Your task to perform on an android device: install app "eBay: The shopping marketplace" Image 0: 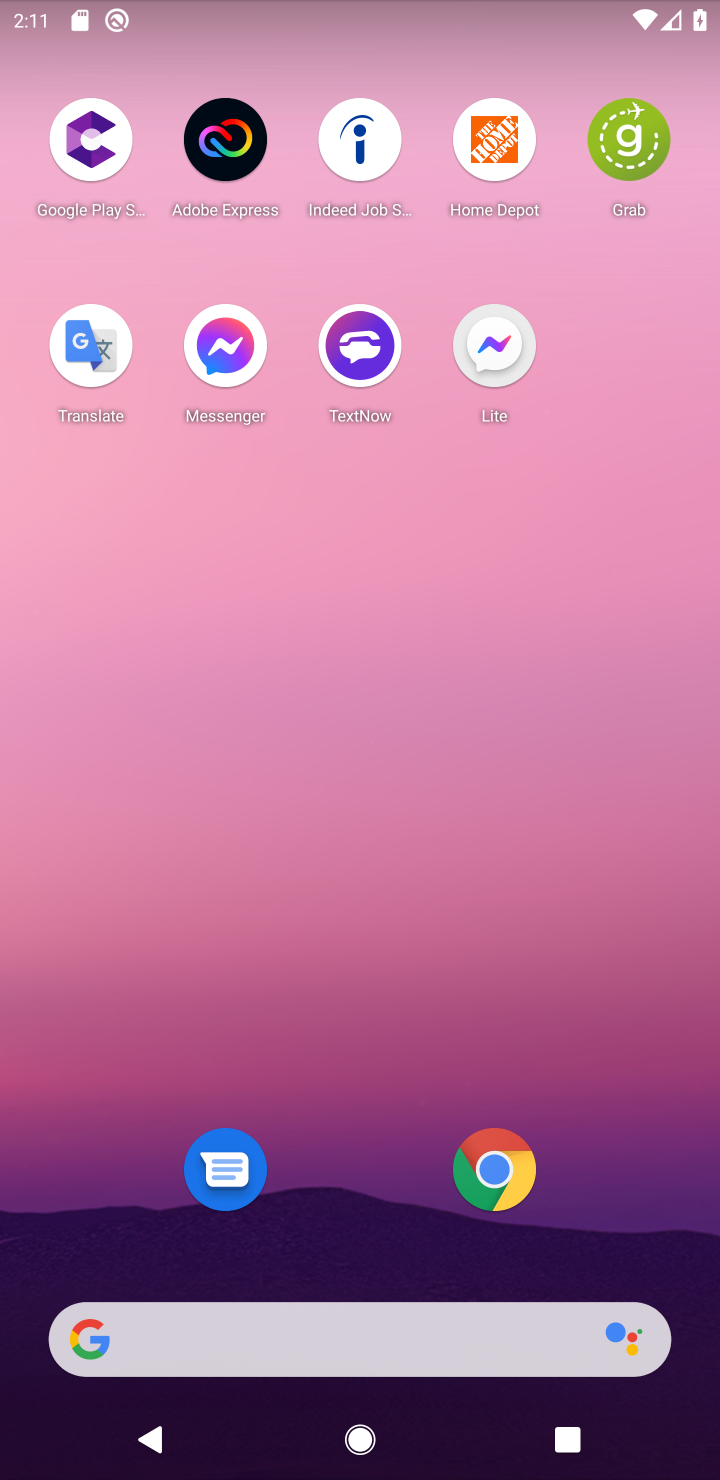
Step 0: drag from (362, 1225) to (456, 25)
Your task to perform on an android device: install app "eBay: The shopping marketplace" Image 1: 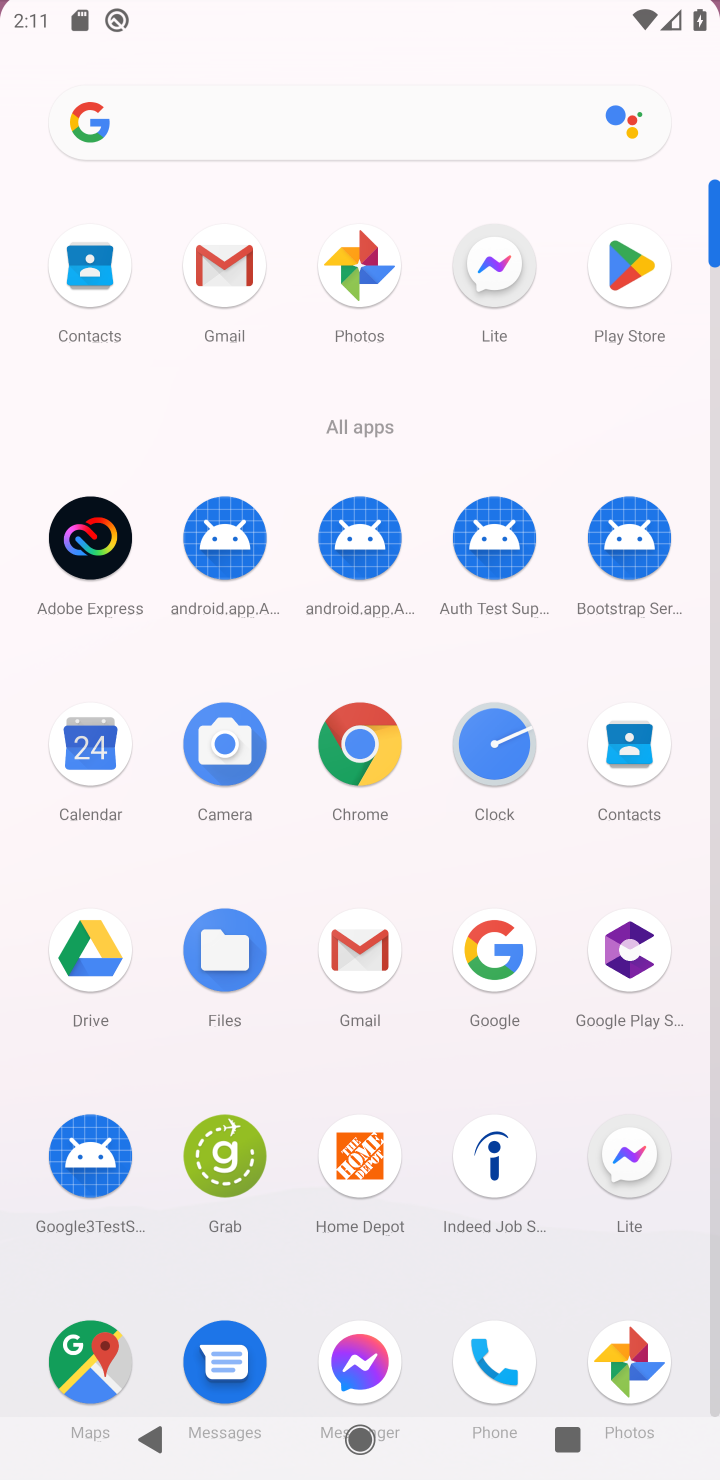
Step 1: click (615, 249)
Your task to perform on an android device: install app "eBay: The shopping marketplace" Image 2: 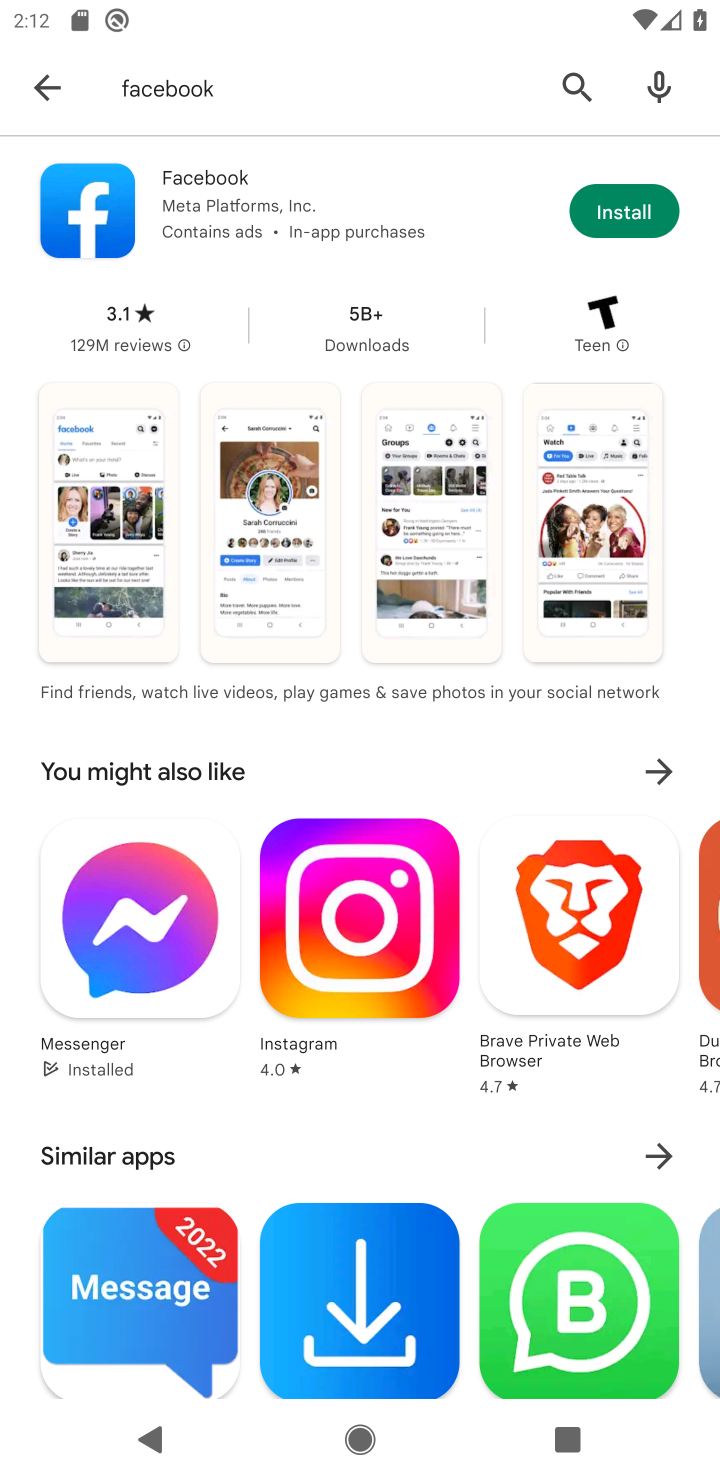
Step 2: click (564, 81)
Your task to perform on an android device: install app "eBay: The shopping marketplace" Image 3: 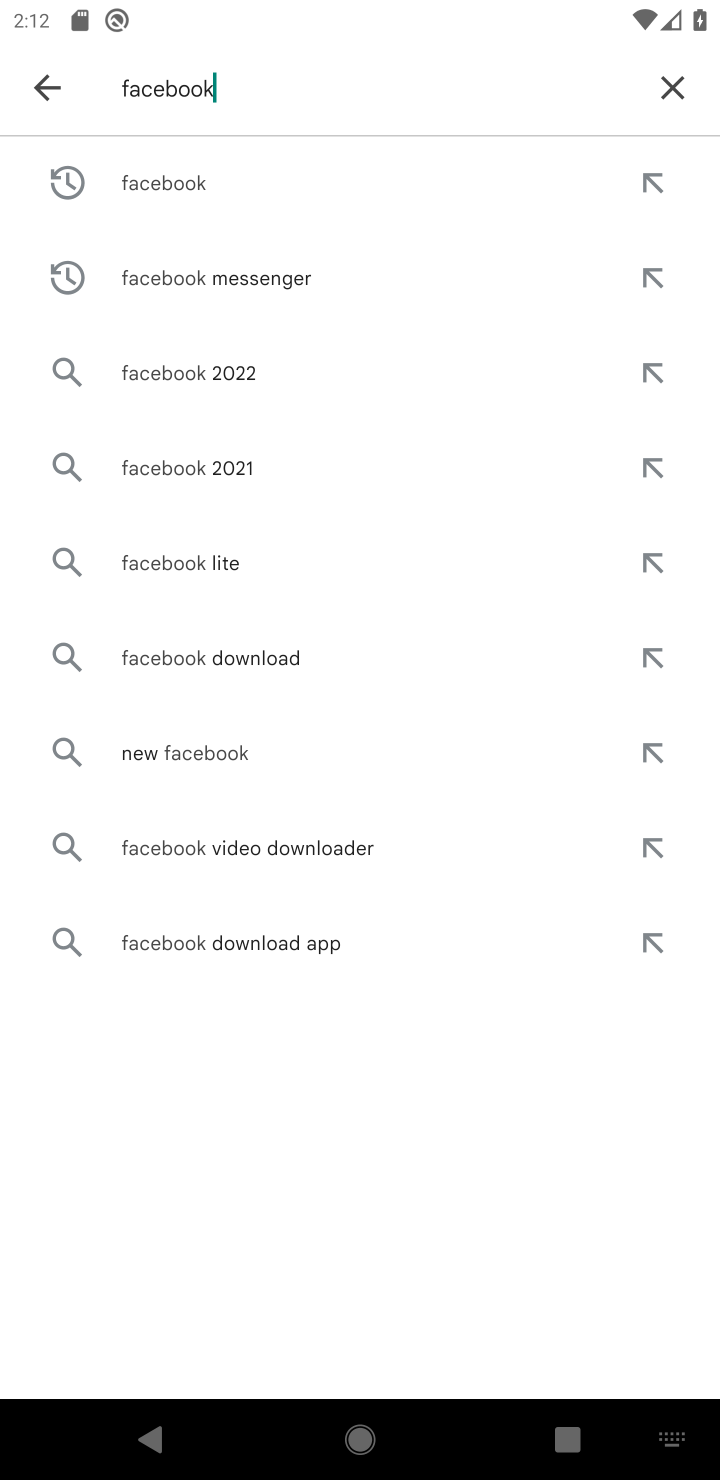
Step 3: click (672, 86)
Your task to perform on an android device: install app "eBay: The shopping marketplace" Image 4: 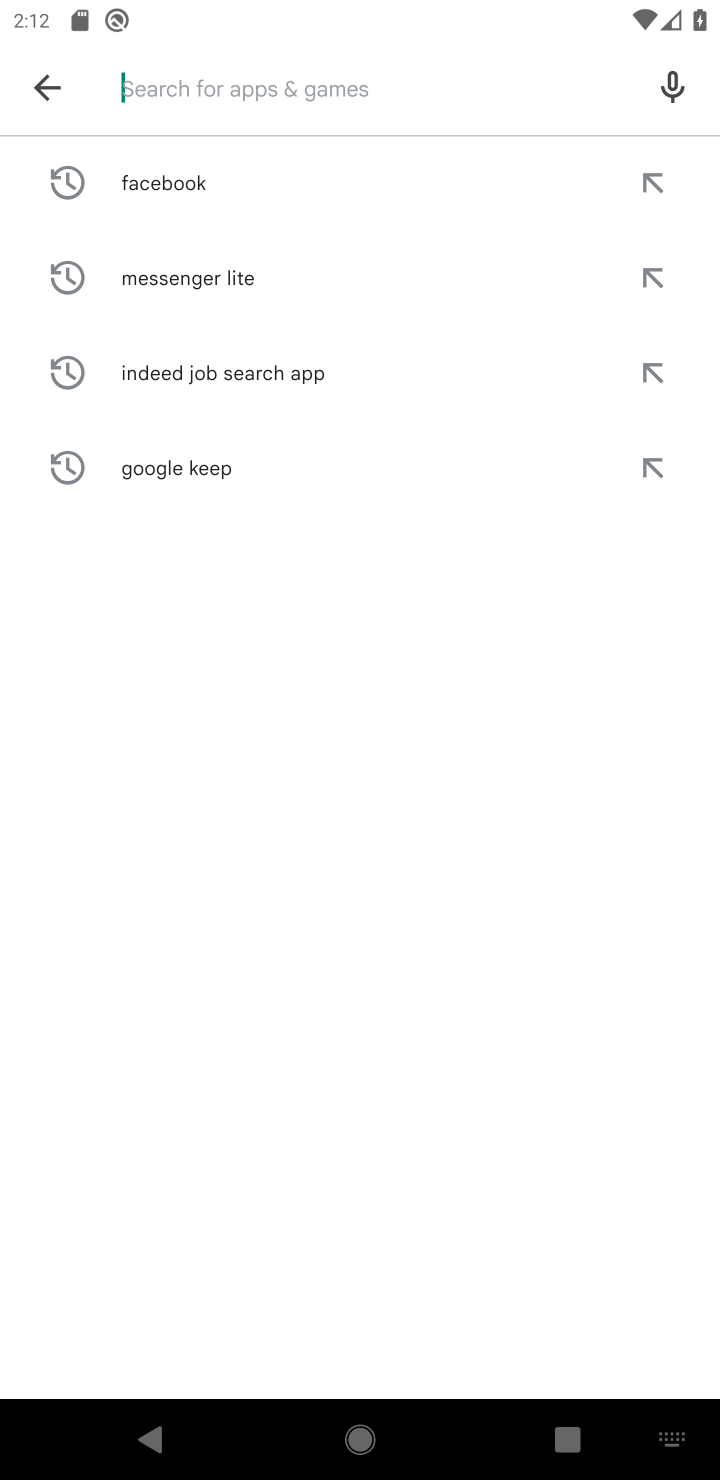
Step 4: click (313, 1476)
Your task to perform on an android device: install app "eBay: The shopping marketplace" Image 5: 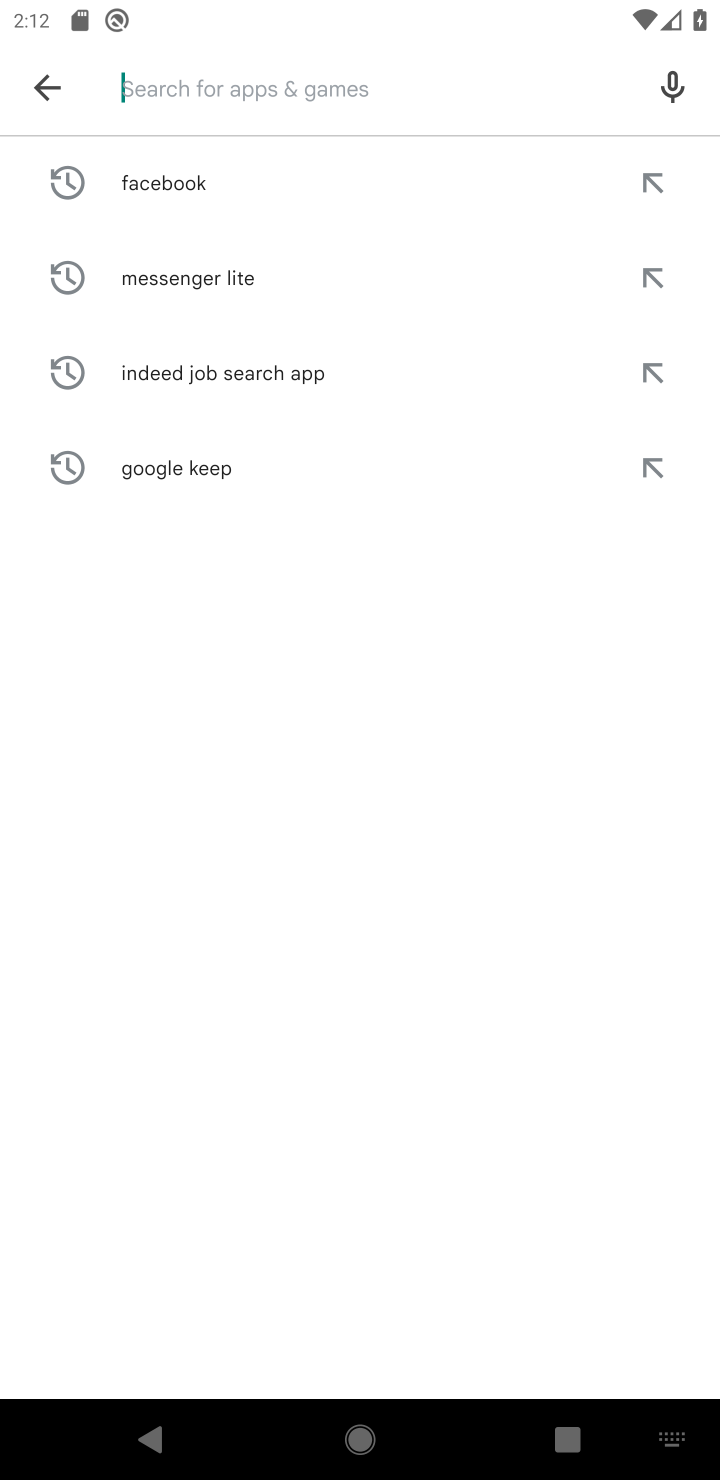
Step 5: type "eBay"
Your task to perform on an android device: install app "eBay: The shopping marketplace" Image 6: 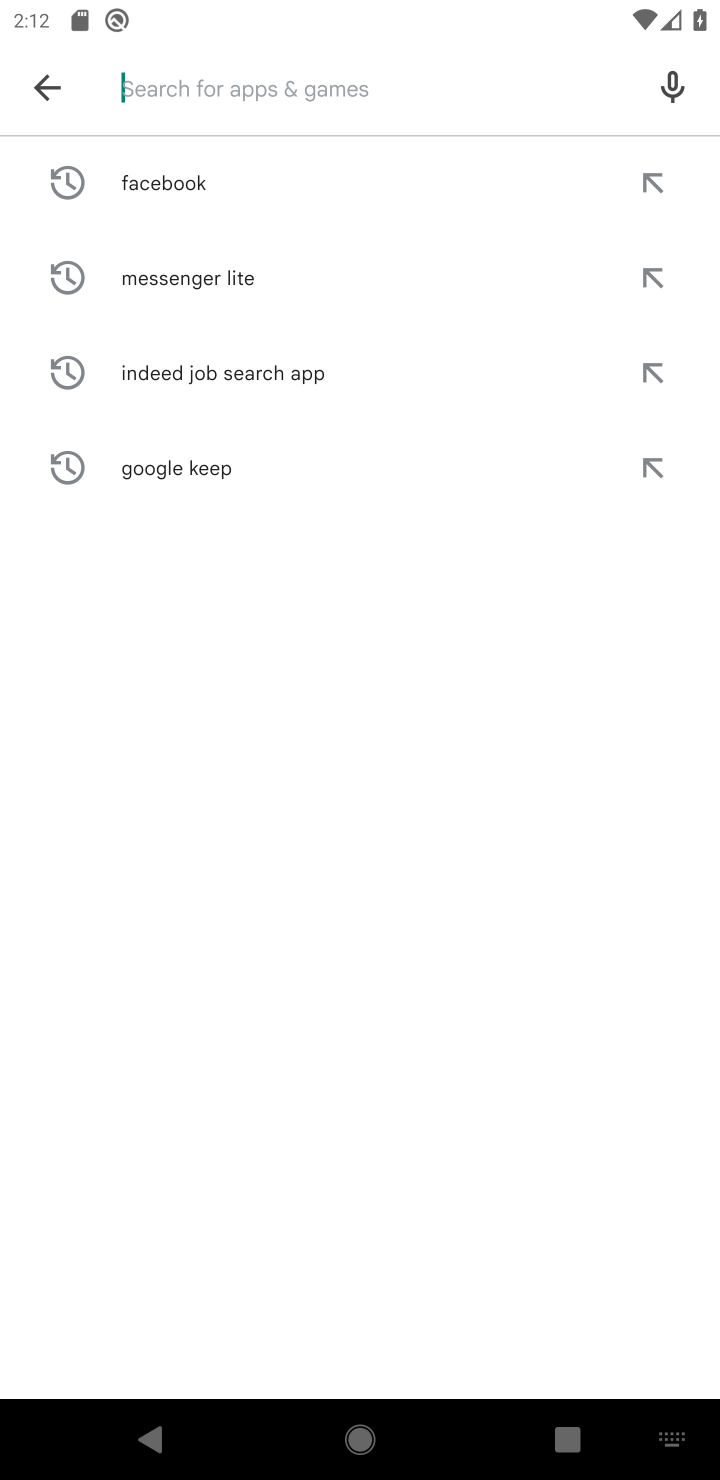
Step 6: click (585, 230)
Your task to perform on an android device: install app "eBay: The shopping marketplace" Image 7: 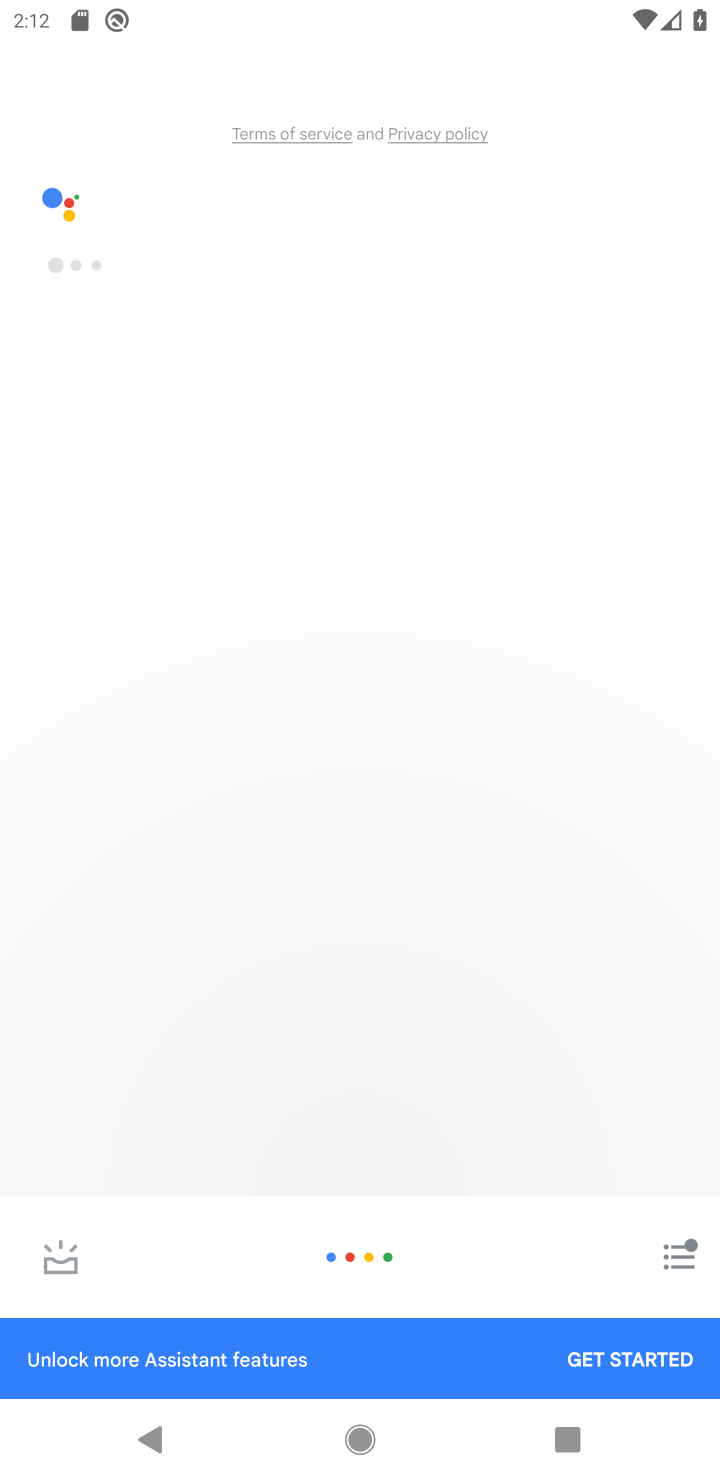
Step 7: press back button
Your task to perform on an android device: install app "eBay: The shopping marketplace" Image 8: 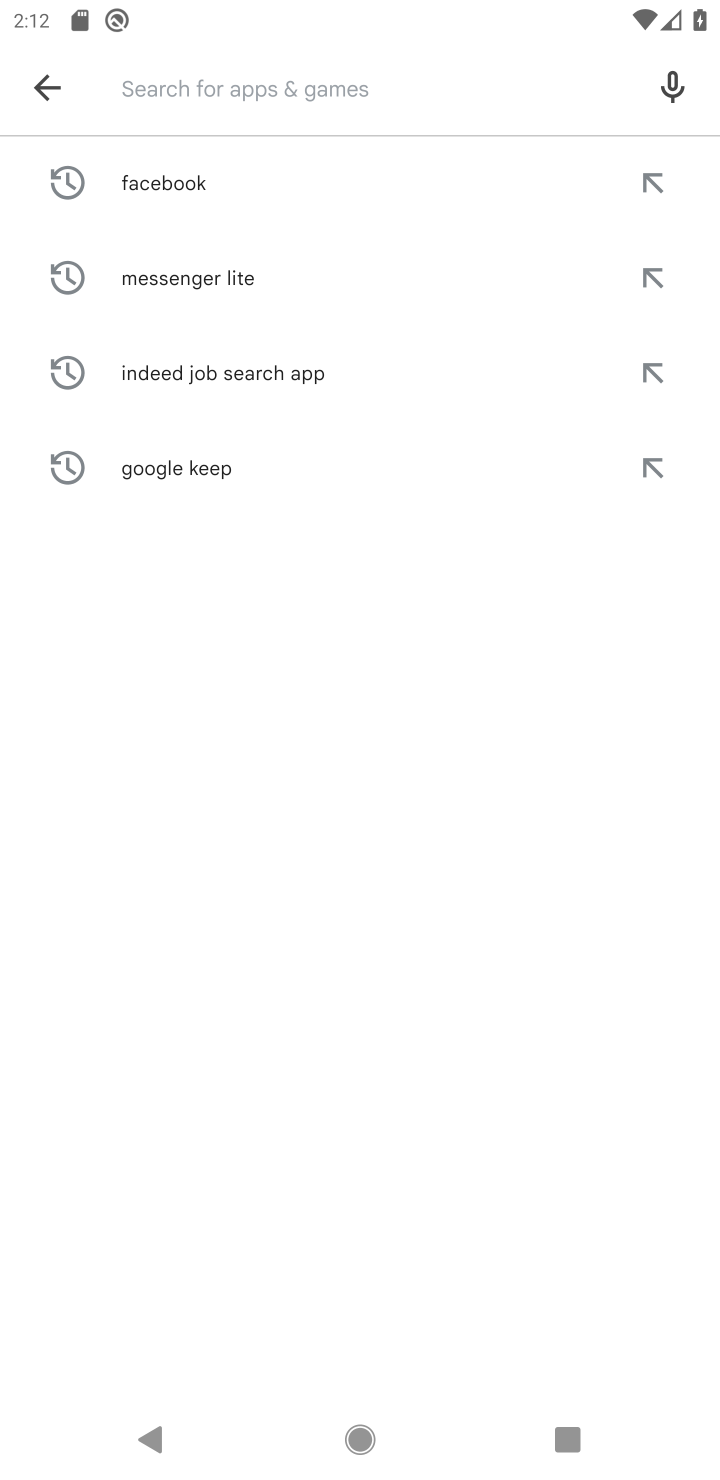
Step 8: type "eBay"
Your task to perform on an android device: install app "eBay: The shopping marketplace" Image 9: 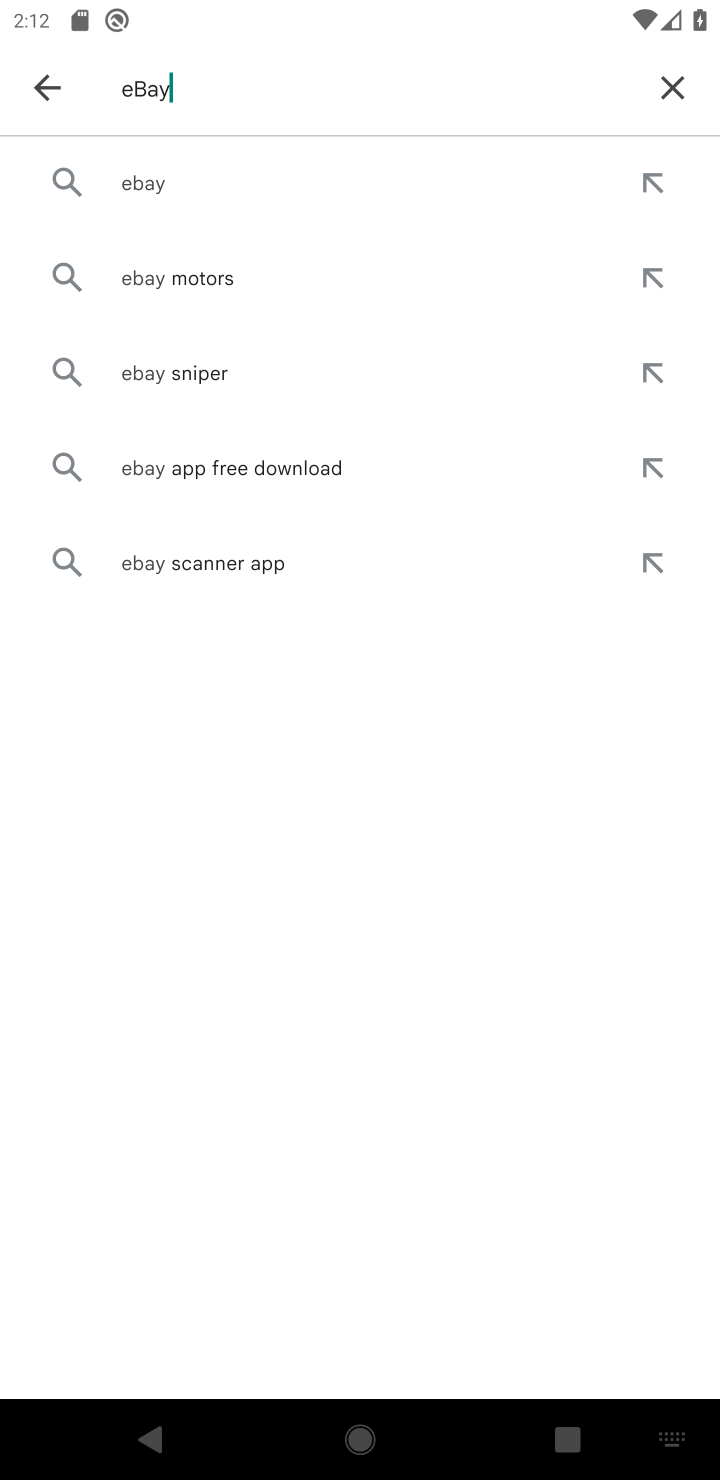
Step 9: click (156, 199)
Your task to perform on an android device: install app "eBay: The shopping marketplace" Image 10: 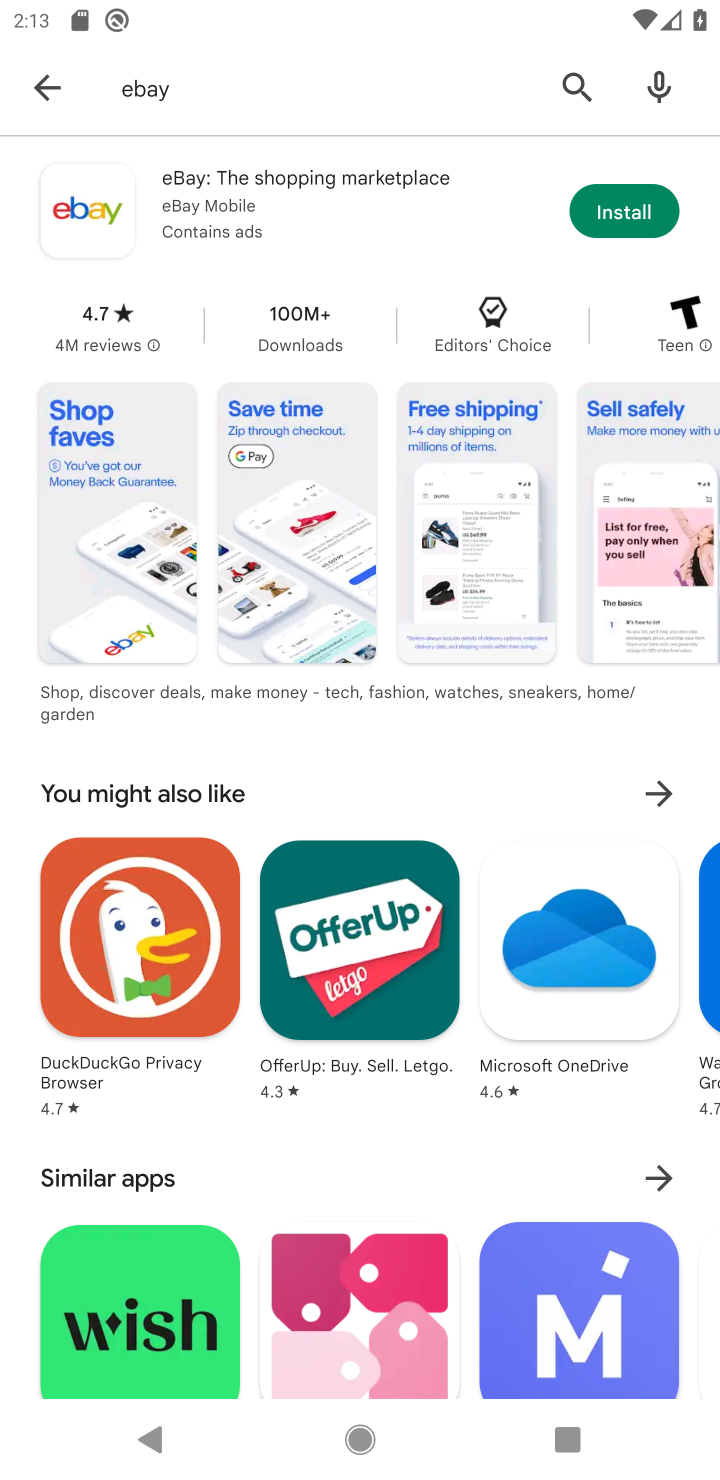
Step 10: click (620, 229)
Your task to perform on an android device: install app "eBay: The shopping marketplace" Image 11: 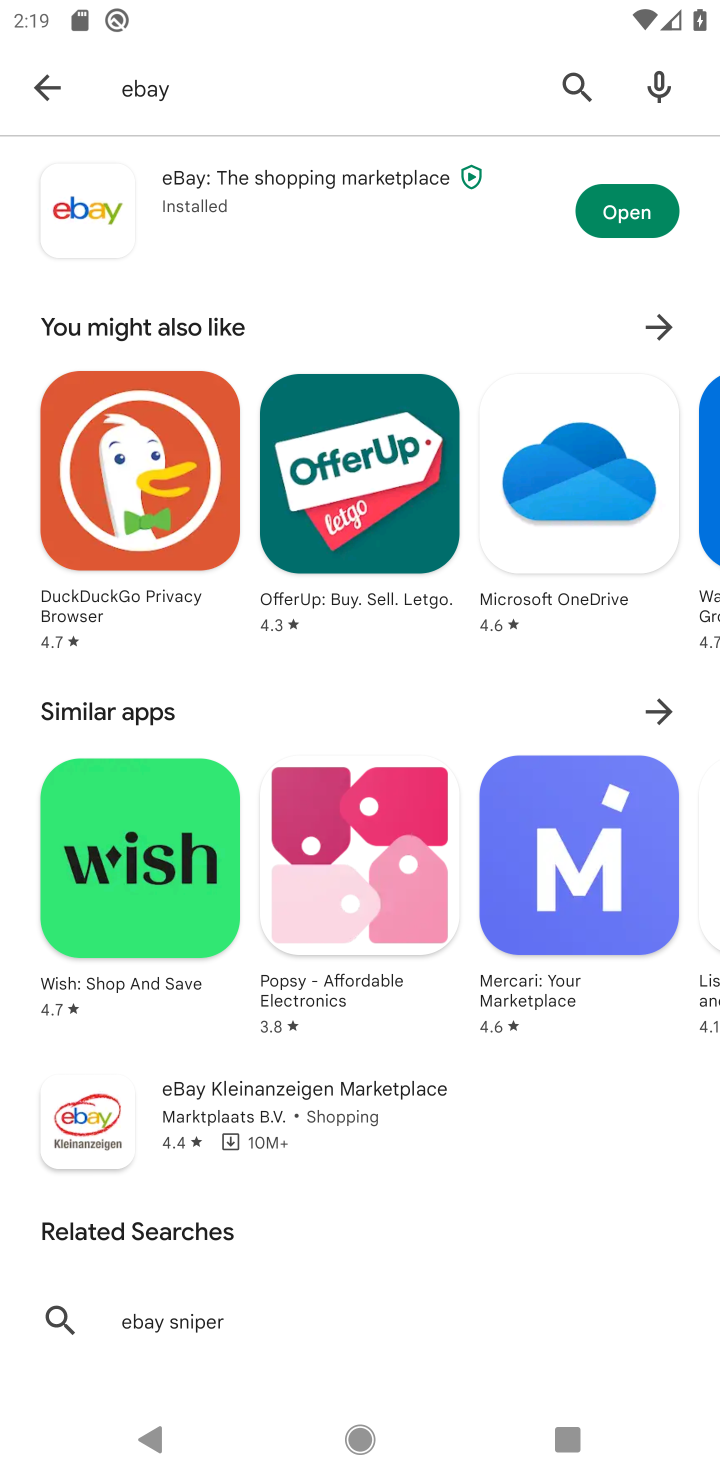
Step 11: click (636, 199)
Your task to perform on an android device: install app "eBay: The shopping marketplace" Image 12: 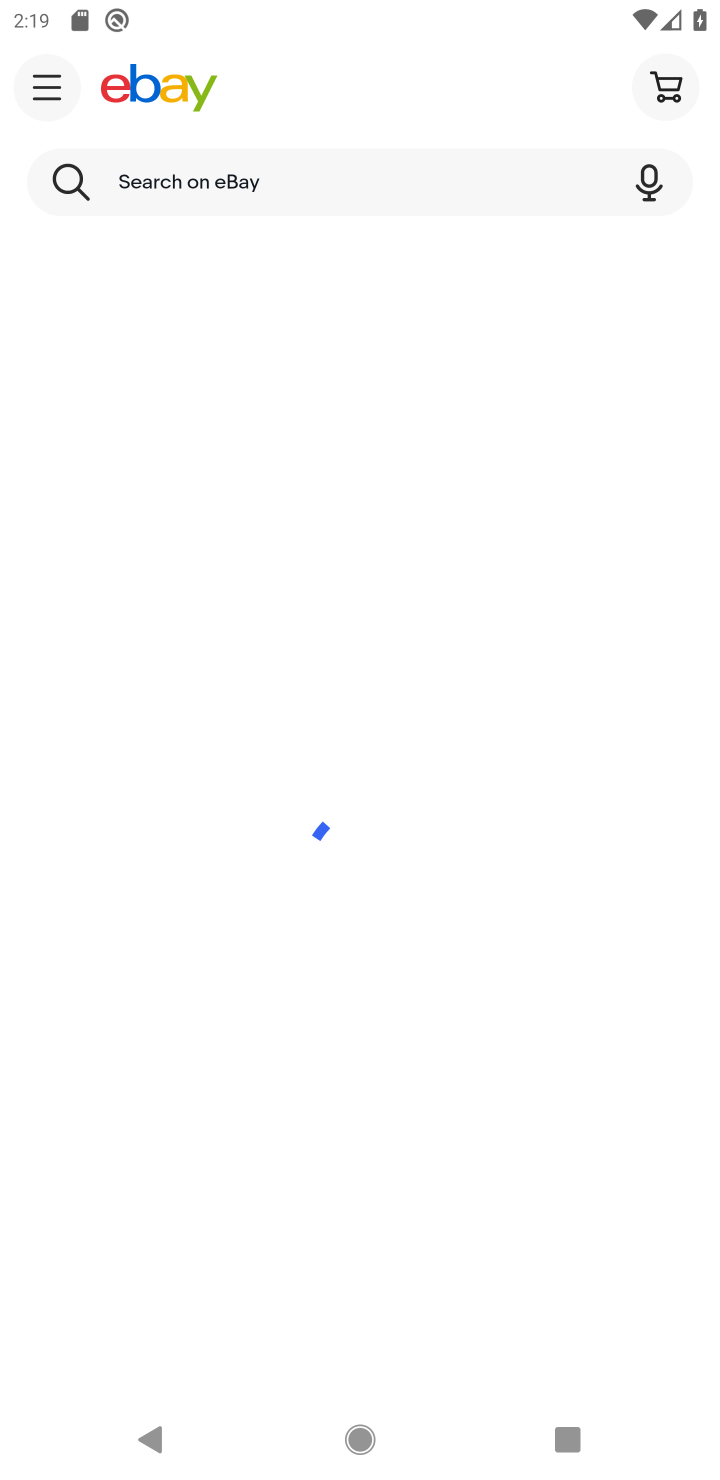
Step 12: task complete